Your task to perform on an android device: clear history in the chrome app Image 0: 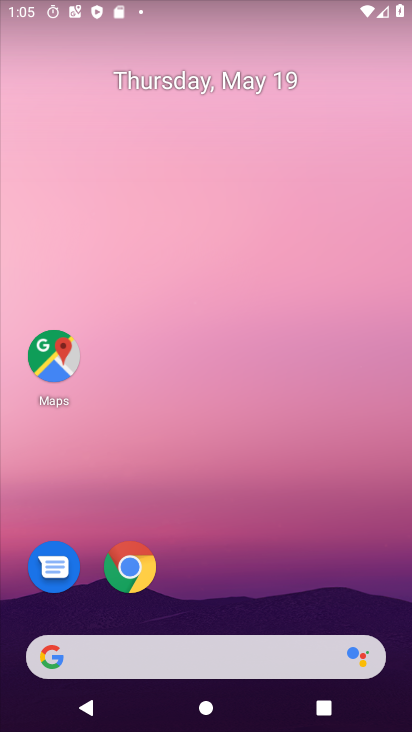
Step 0: press home button
Your task to perform on an android device: clear history in the chrome app Image 1: 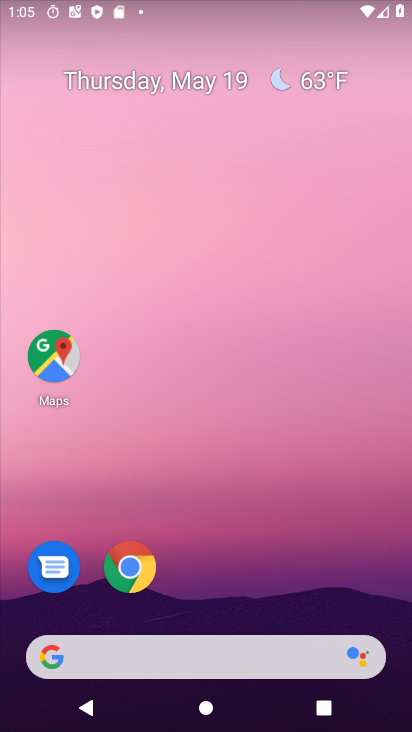
Step 1: drag from (144, 664) to (281, 313)
Your task to perform on an android device: clear history in the chrome app Image 2: 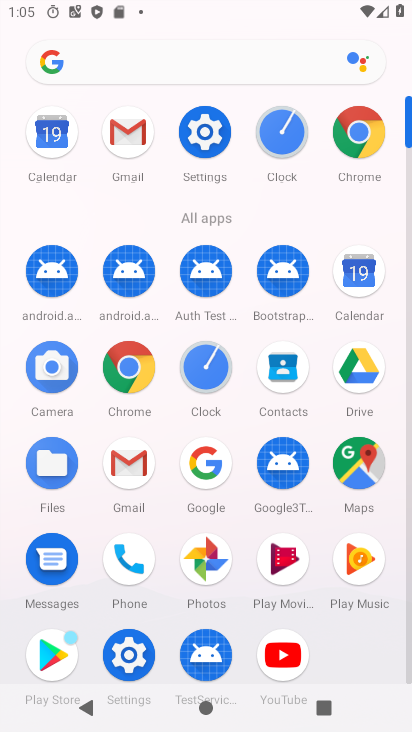
Step 2: click (359, 136)
Your task to perform on an android device: clear history in the chrome app Image 3: 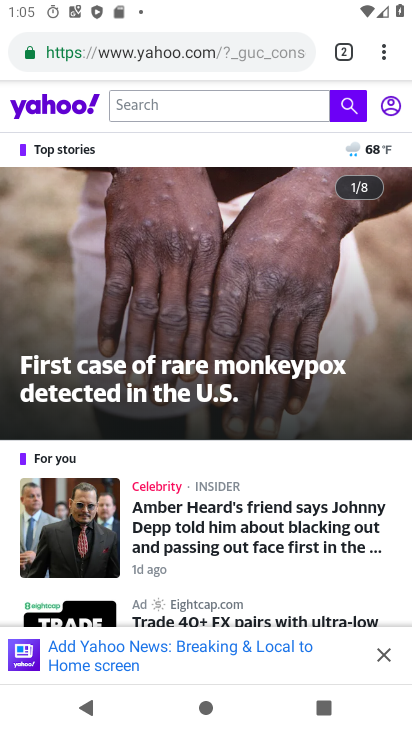
Step 3: drag from (383, 55) to (255, 284)
Your task to perform on an android device: clear history in the chrome app Image 4: 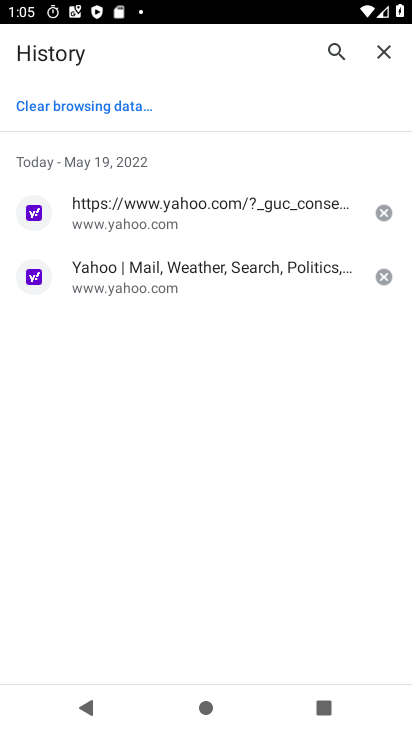
Step 4: click (119, 106)
Your task to perform on an android device: clear history in the chrome app Image 5: 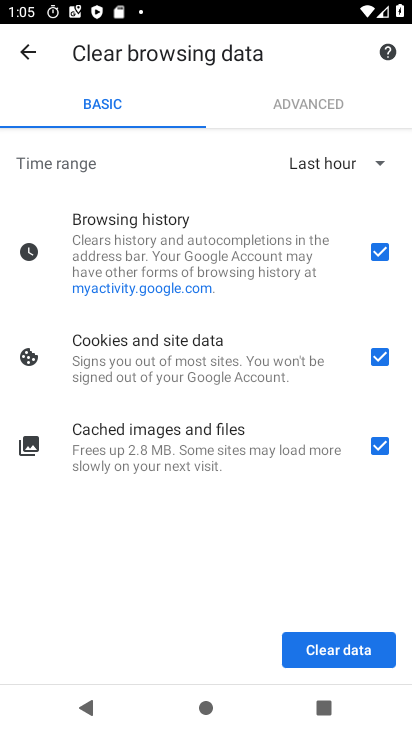
Step 5: click (326, 651)
Your task to perform on an android device: clear history in the chrome app Image 6: 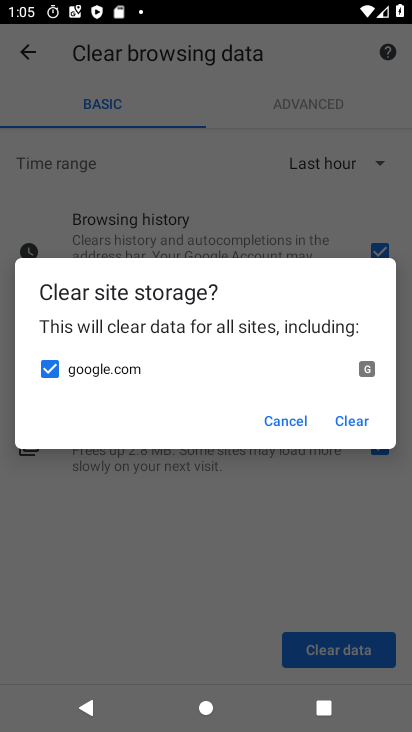
Step 6: click (347, 420)
Your task to perform on an android device: clear history in the chrome app Image 7: 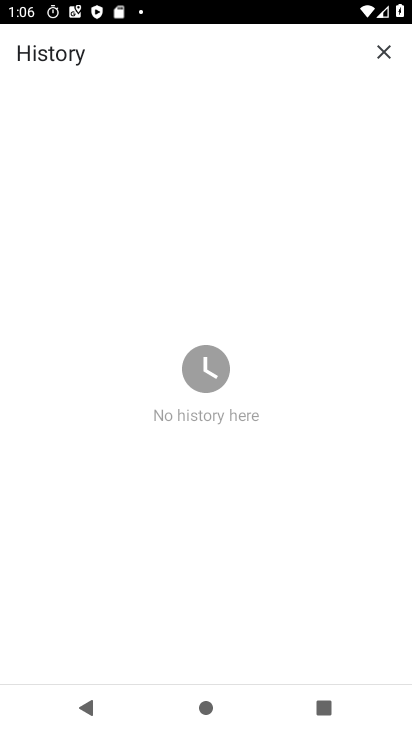
Step 7: task complete